Your task to perform on an android device: Show the shopping cart on amazon.com. Search for "usb-a" on amazon.com, select the first entry, and add it to the cart. Image 0: 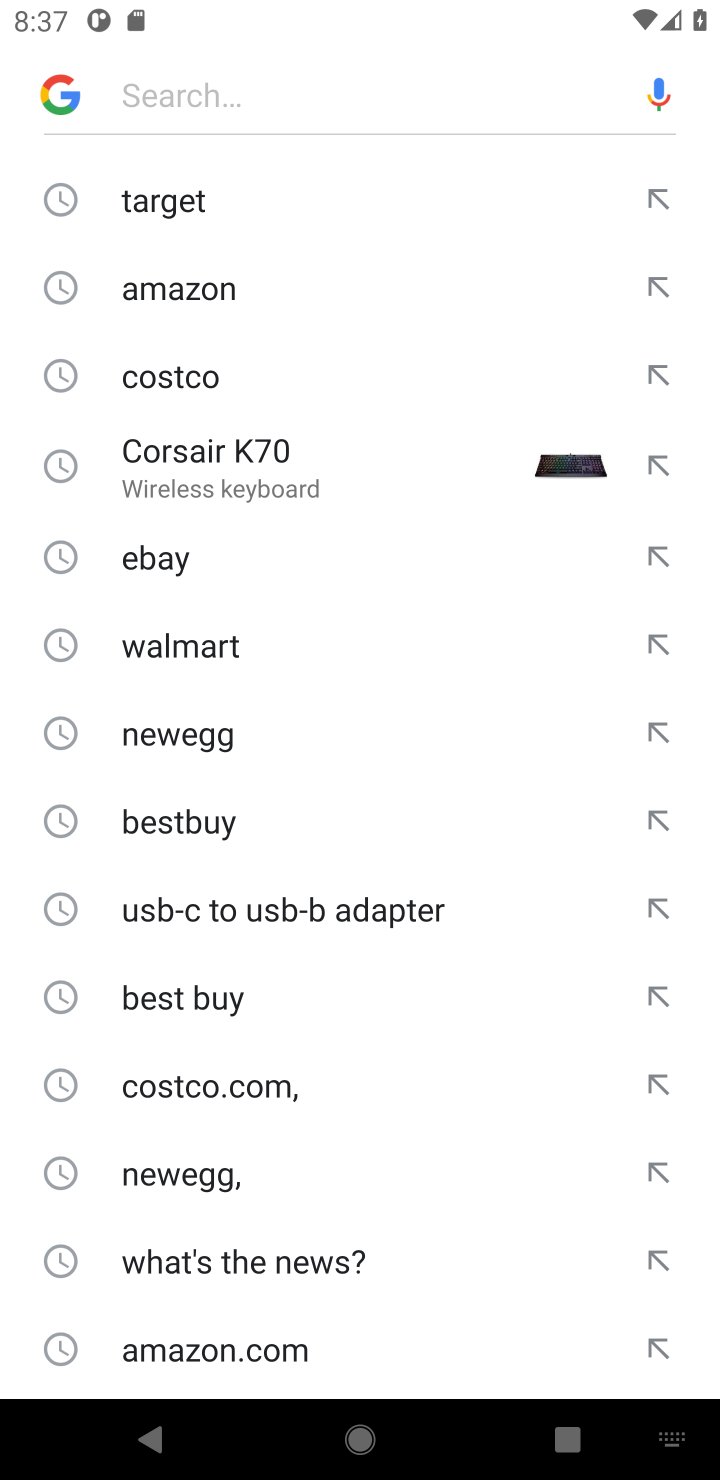
Step 0: press home button
Your task to perform on an android device: Show the shopping cart on amazon.com. Search for "usb-a" on amazon.com, select the first entry, and add it to the cart. Image 1: 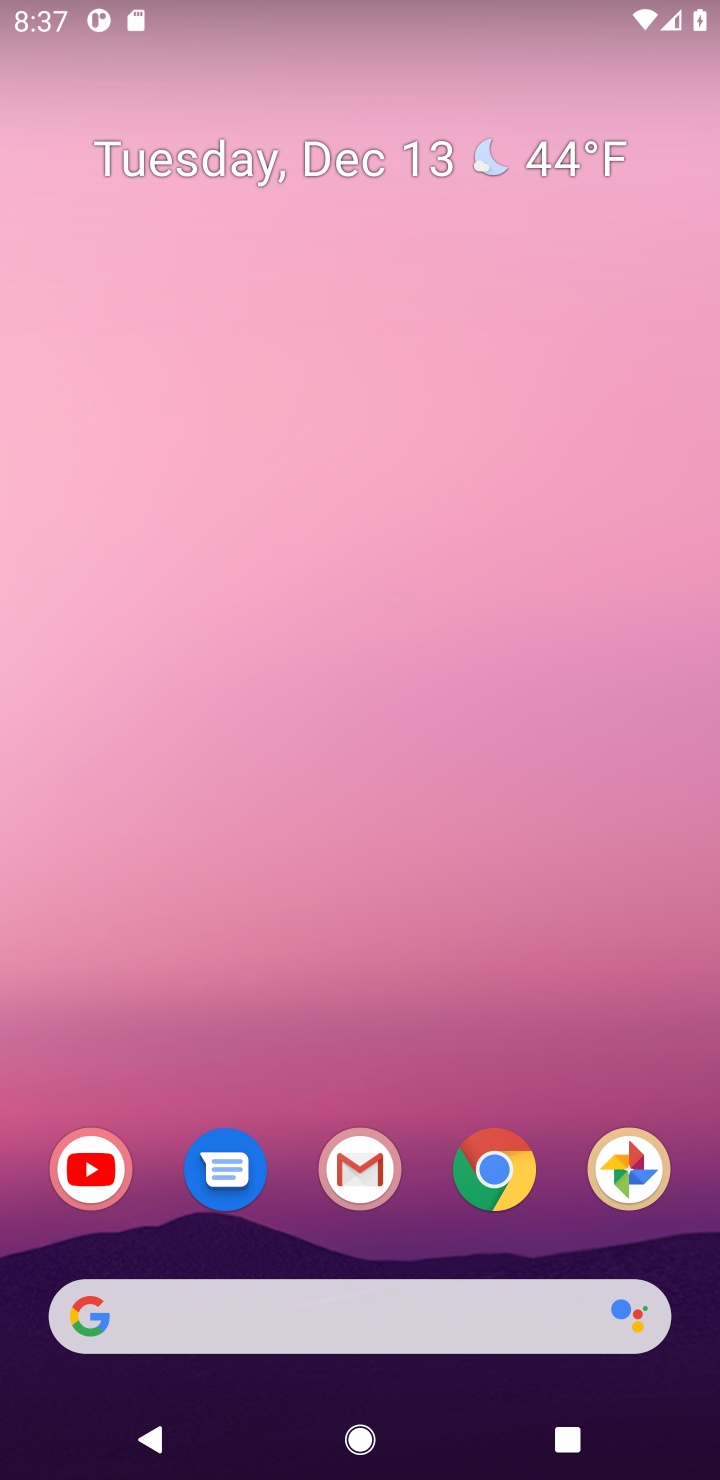
Step 1: click (511, 1166)
Your task to perform on an android device: Show the shopping cart on amazon.com. Search for "usb-a" on amazon.com, select the first entry, and add it to the cart. Image 2: 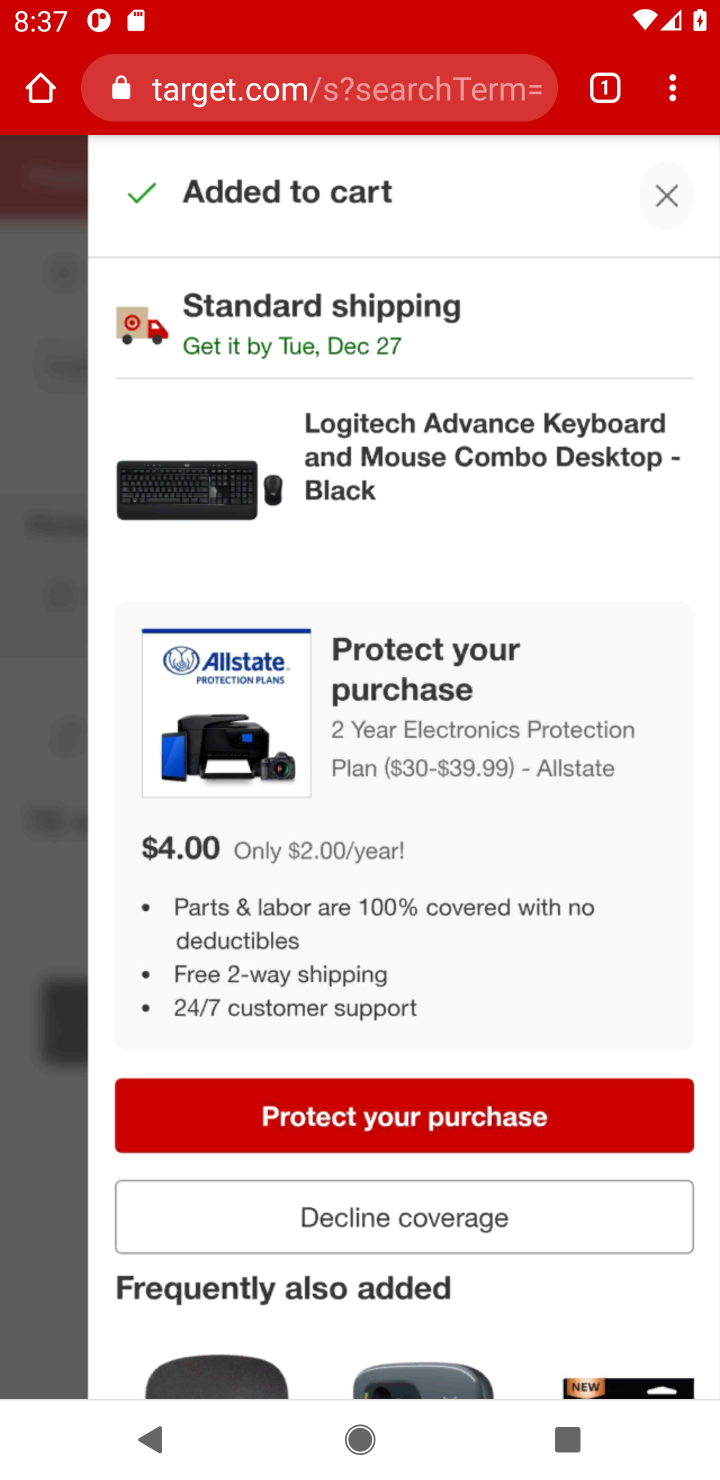
Step 2: click (232, 95)
Your task to perform on an android device: Show the shopping cart on amazon.com. Search for "usb-a" on amazon.com, select the first entry, and add it to the cart. Image 3: 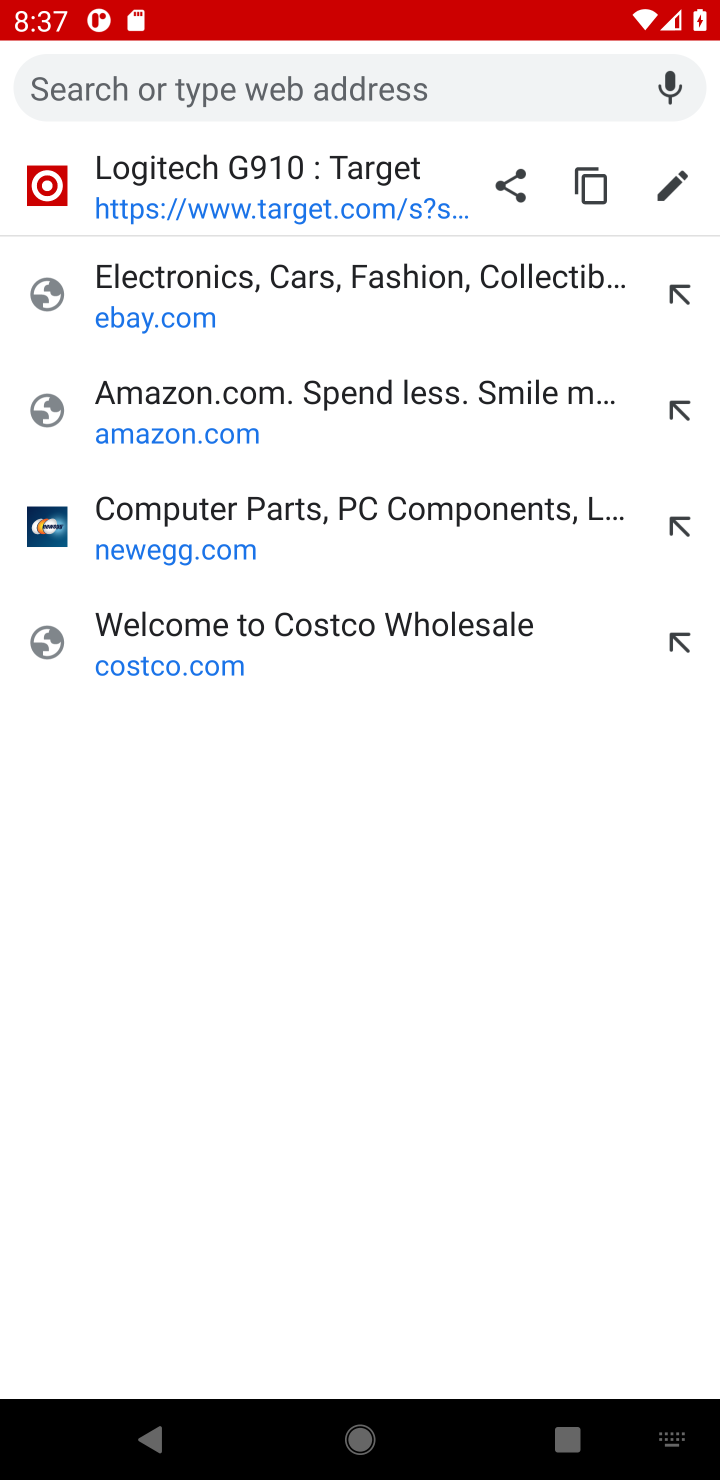
Step 3: type "amazon"
Your task to perform on an android device: Show the shopping cart on amazon.com. Search for "usb-a" on amazon.com, select the first entry, and add it to the cart. Image 4: 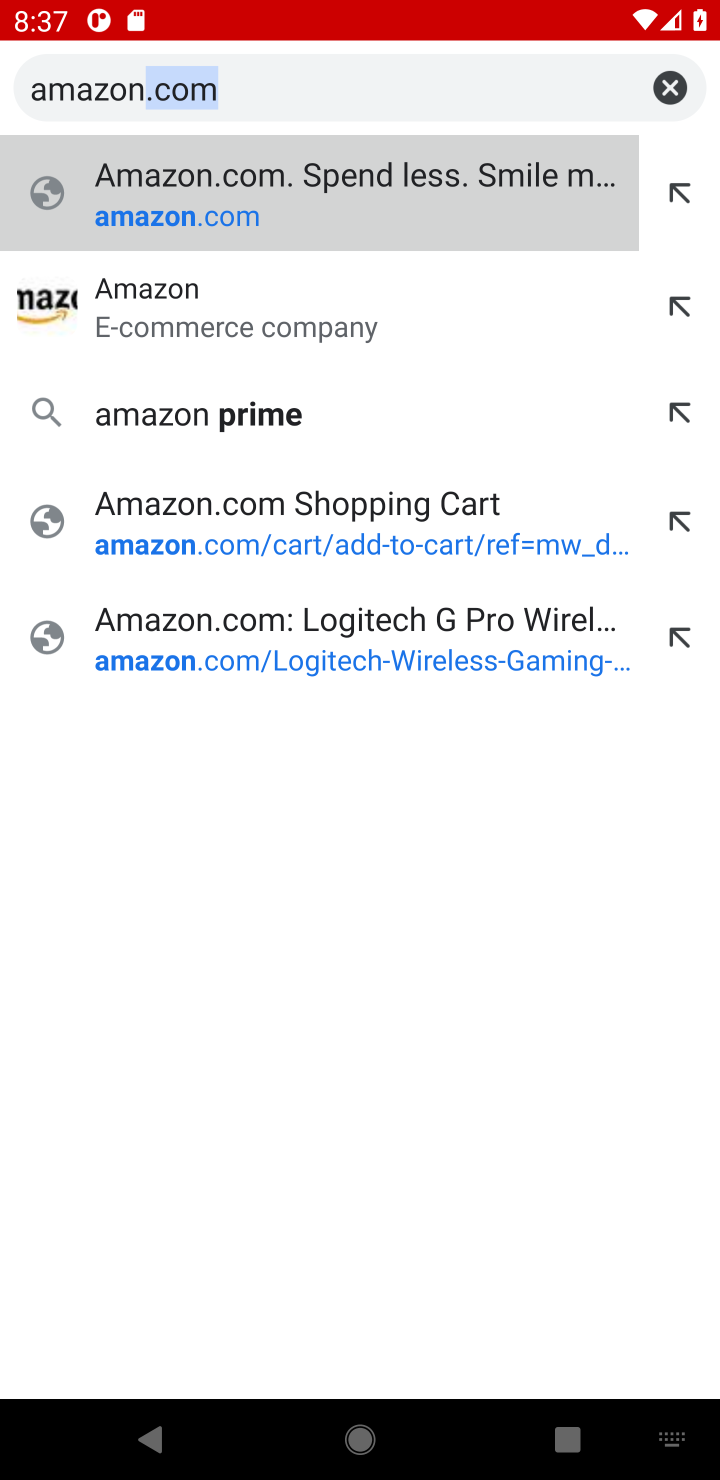
Step 4: click (96, 171)
Your task to perform on an android device: Show the shopping cart on amazon.com. Search for "usb-a" on amazon.com, select the first entry, and add it to the cart. Image 5: 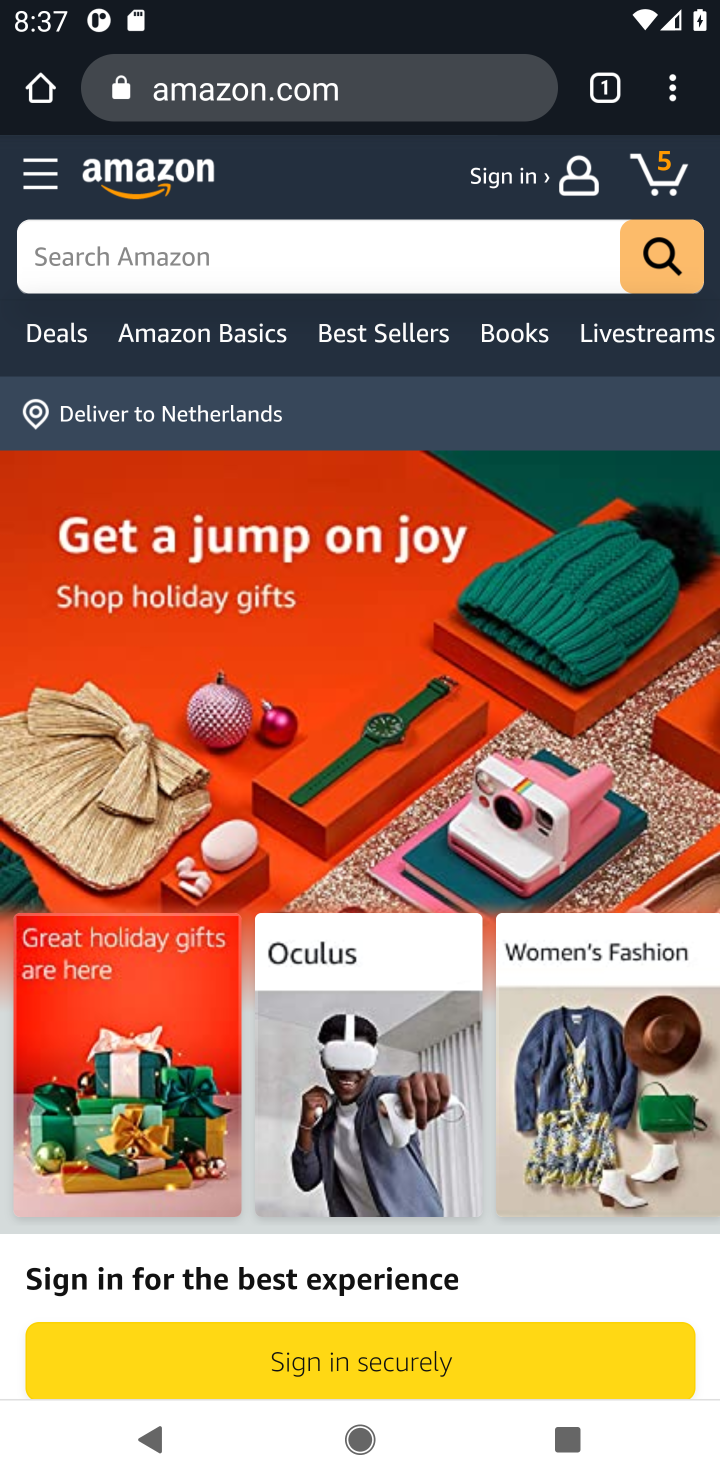
Step 5: click (271, 263)
Your task to perform on an android device: Show the shopping cart on amazon.com. Search for "usb-a" on amazon.com, select the first entry, and add it to the cart. Image 6: 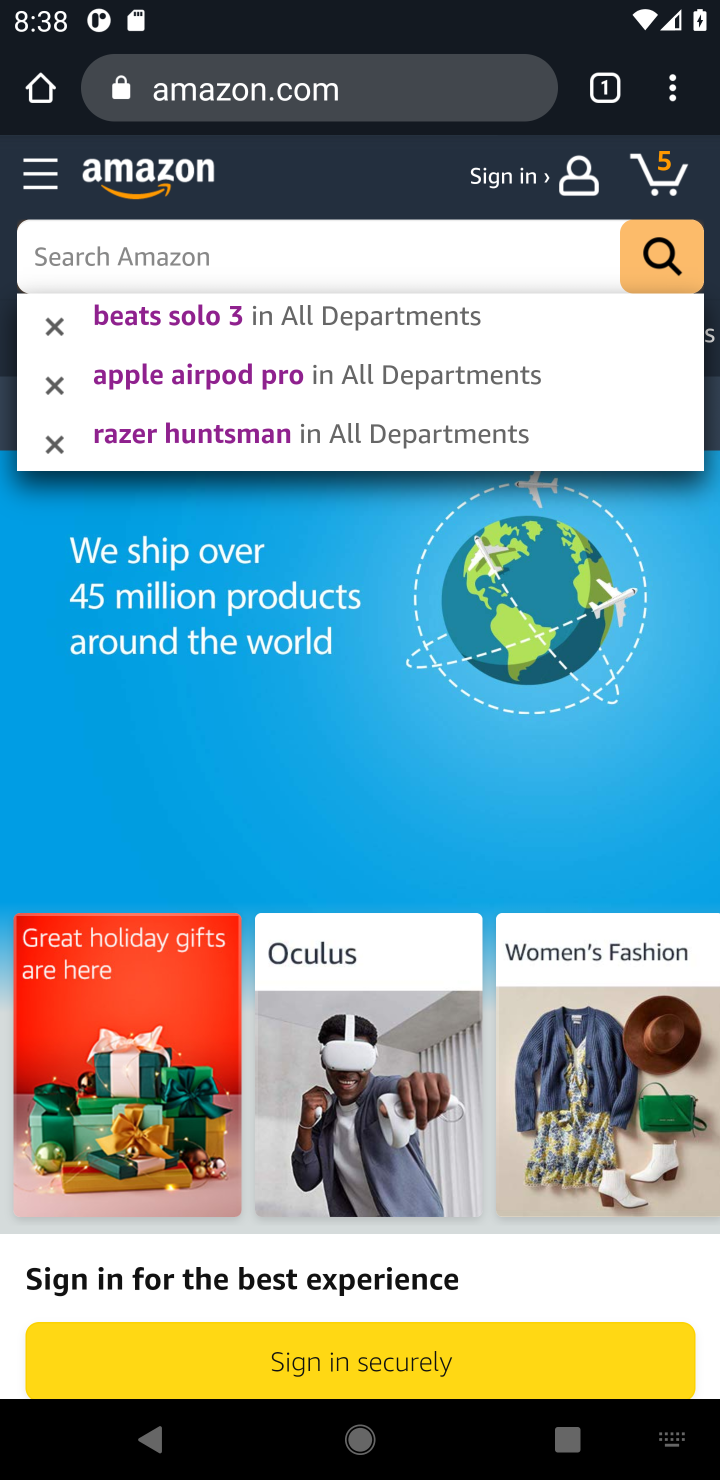
Step 6: type "usb-a"
Your task to perform on an android device: Show the shopping cart on amazon.com. Search for "usb-a" on amazon.com, select the first entry, and add it to the cart. Image 7: 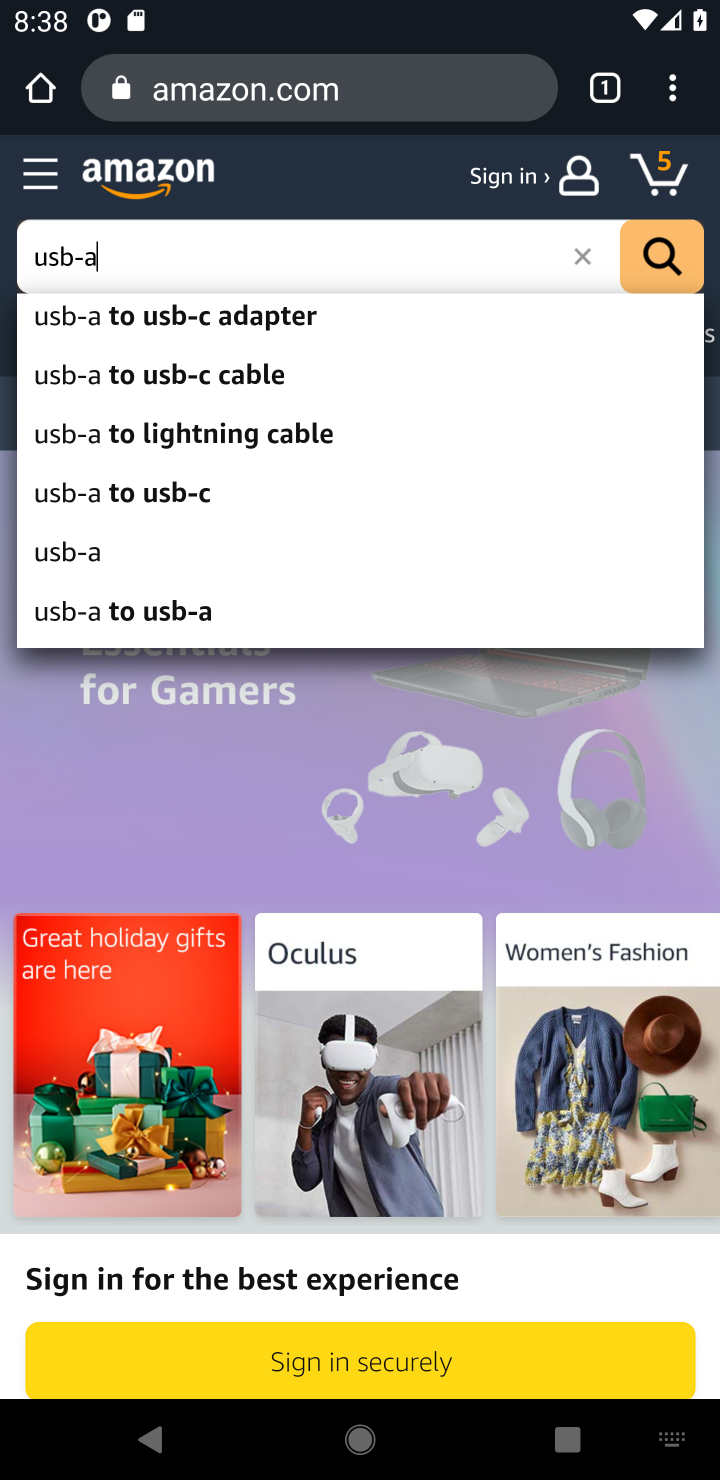
Step 7: click (655, 268)
Your task to perform on an android device: Show the shopping cart on amazon.com. Search for "usb-a" on amazon.com, select the first entry, and add it to the cart. Image 8: 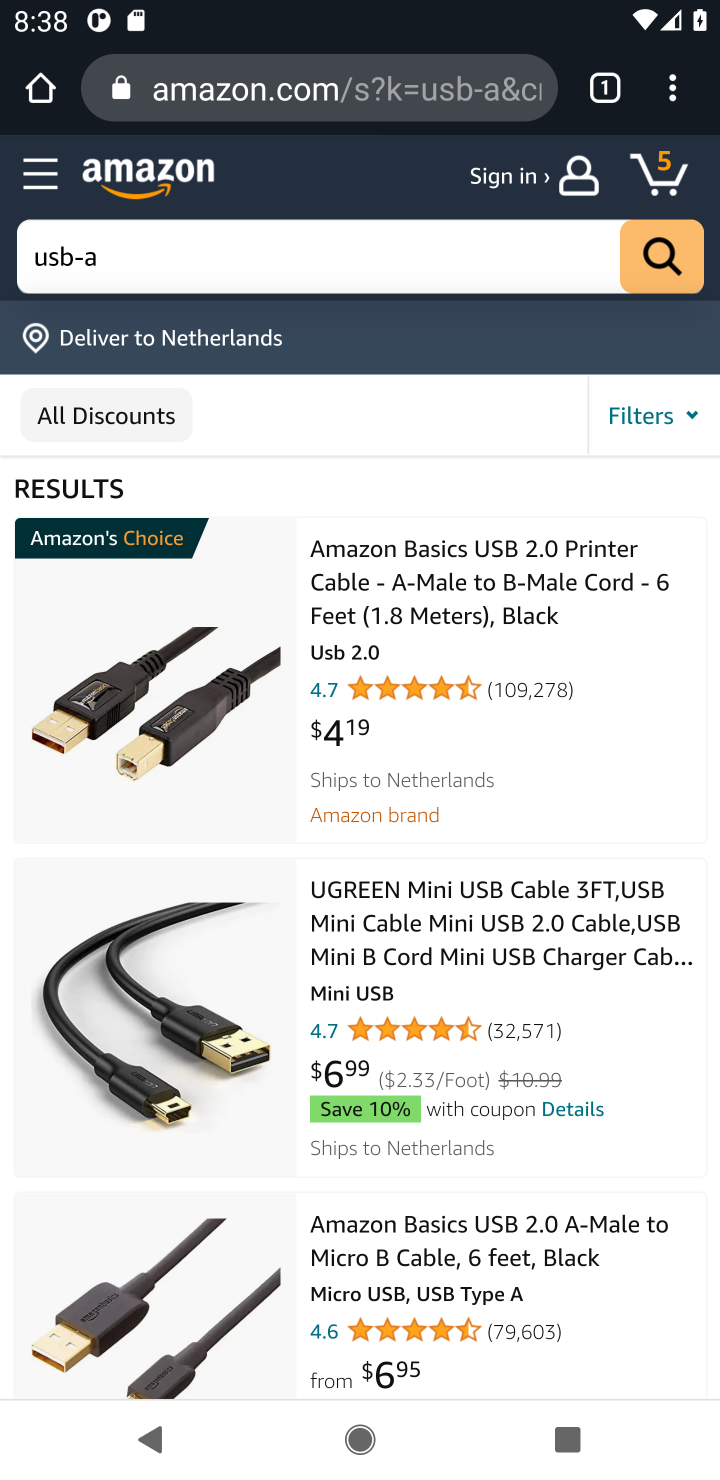
Step 8: click (440, 550)
Your task to perform on an android device: Show the shopping cart on amazon.com. Search for "usb-a" on amazon.com, select the first entry, and add it to the cart. Image 9: 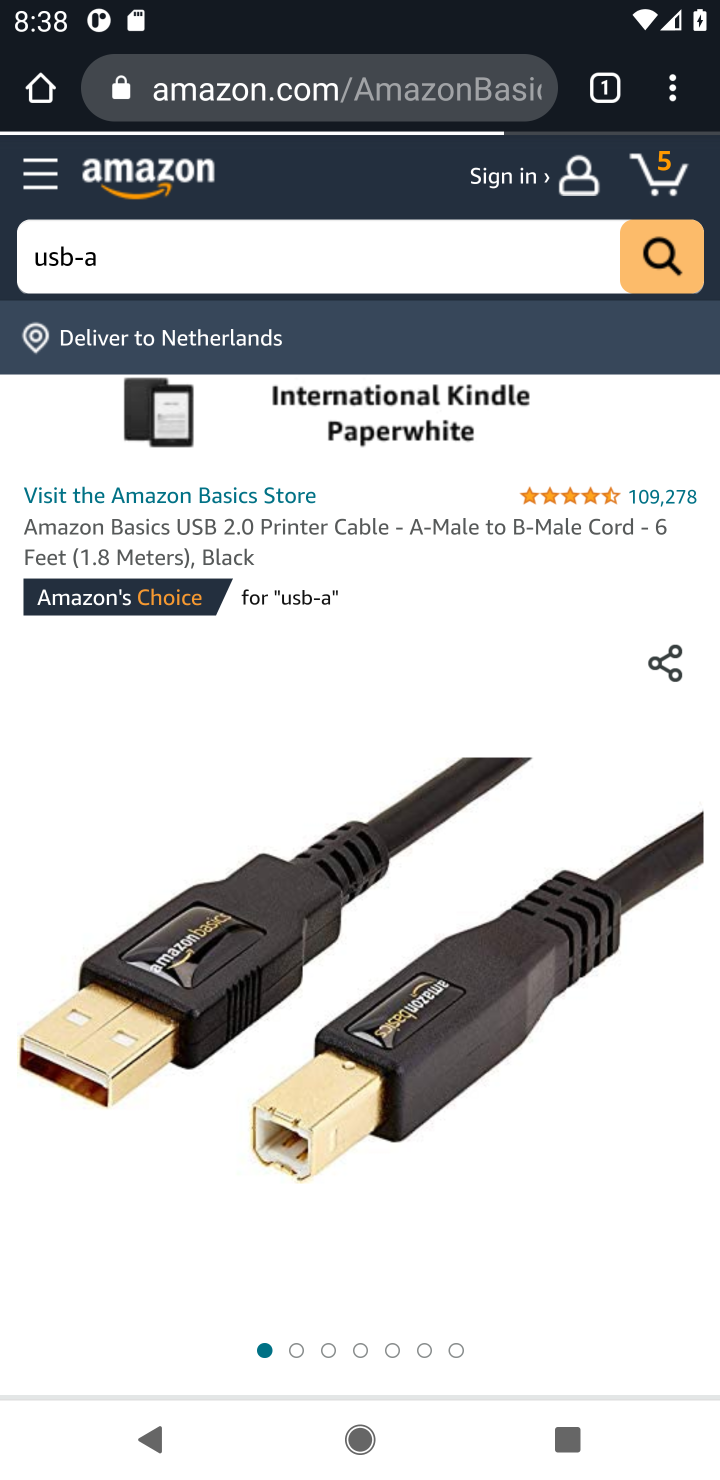
Step 9: drag from (334, 1052) to (422, 478)
Your task to perform on an android device: Show the shopping cart on amazon.com. Search for "usb-a" on amazon.com, select the first entry, and add it to the cart. Image 10: 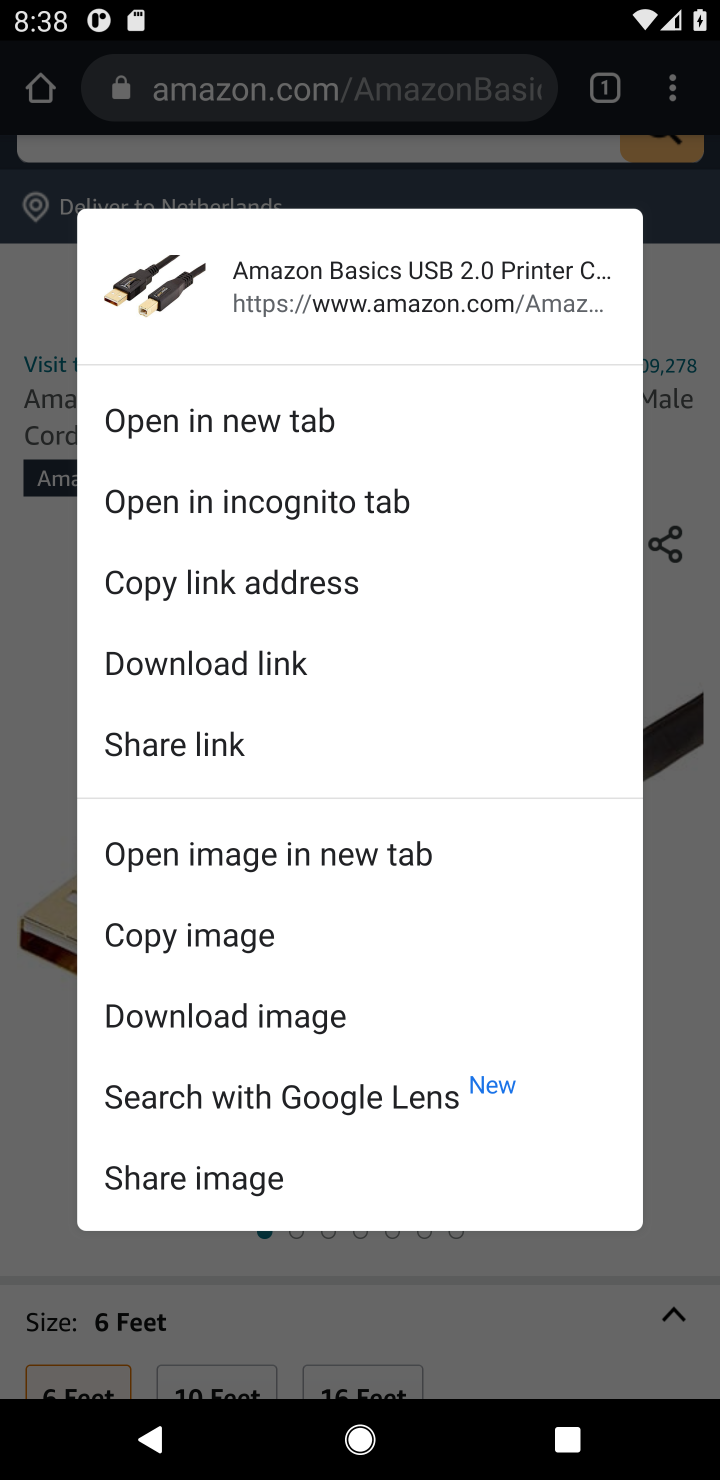
Step 10: click (672, 1091)
Your task to perform on an android device: Show the shopping cart on amazon.com. Search for "usb-a" on amazon.com, select the first entry, and add it to the cart. Image 11: 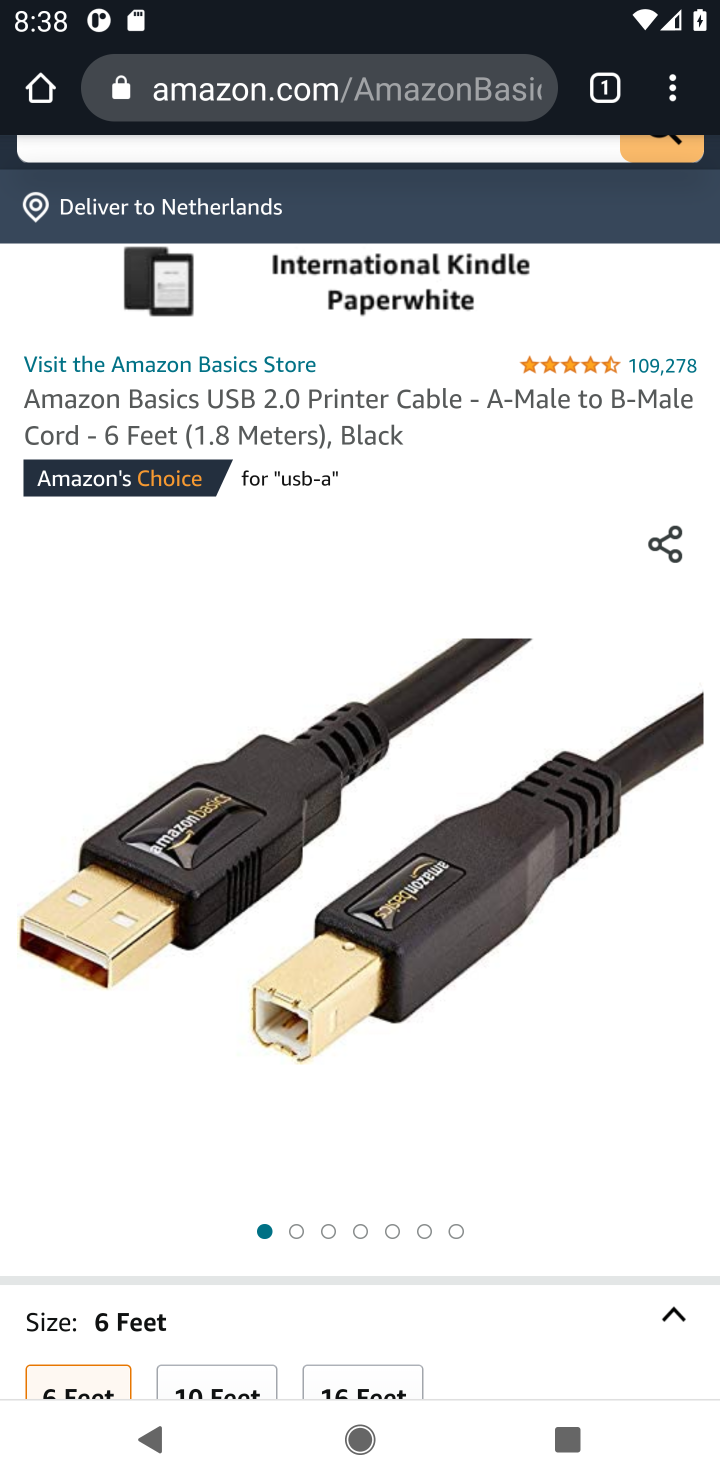
Step 11: drag from (448, 1208) to (479, 396)
Your task to perform on an android device: Show the shopping cart on amazon.com. Search for "usb-a" on amazon.com, select the first entry, and add it to the cart. Image 12: 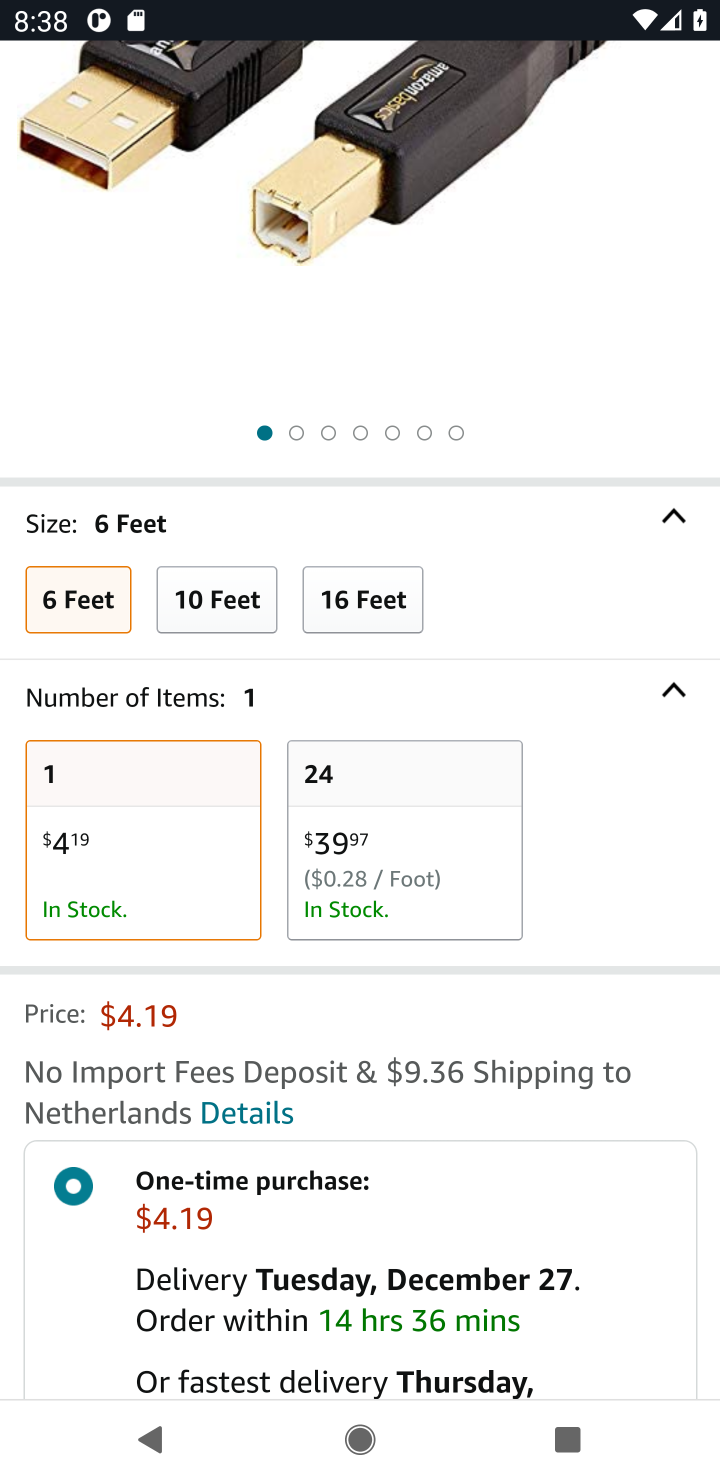
Step 12: drag from (386, 1029) to (445, 512)
Your task to perform on an android device: Show the shopping cart on amazon.com. Search for "usb-a" on amazon.com, select the first entry, and add it to the cart. Image 13: 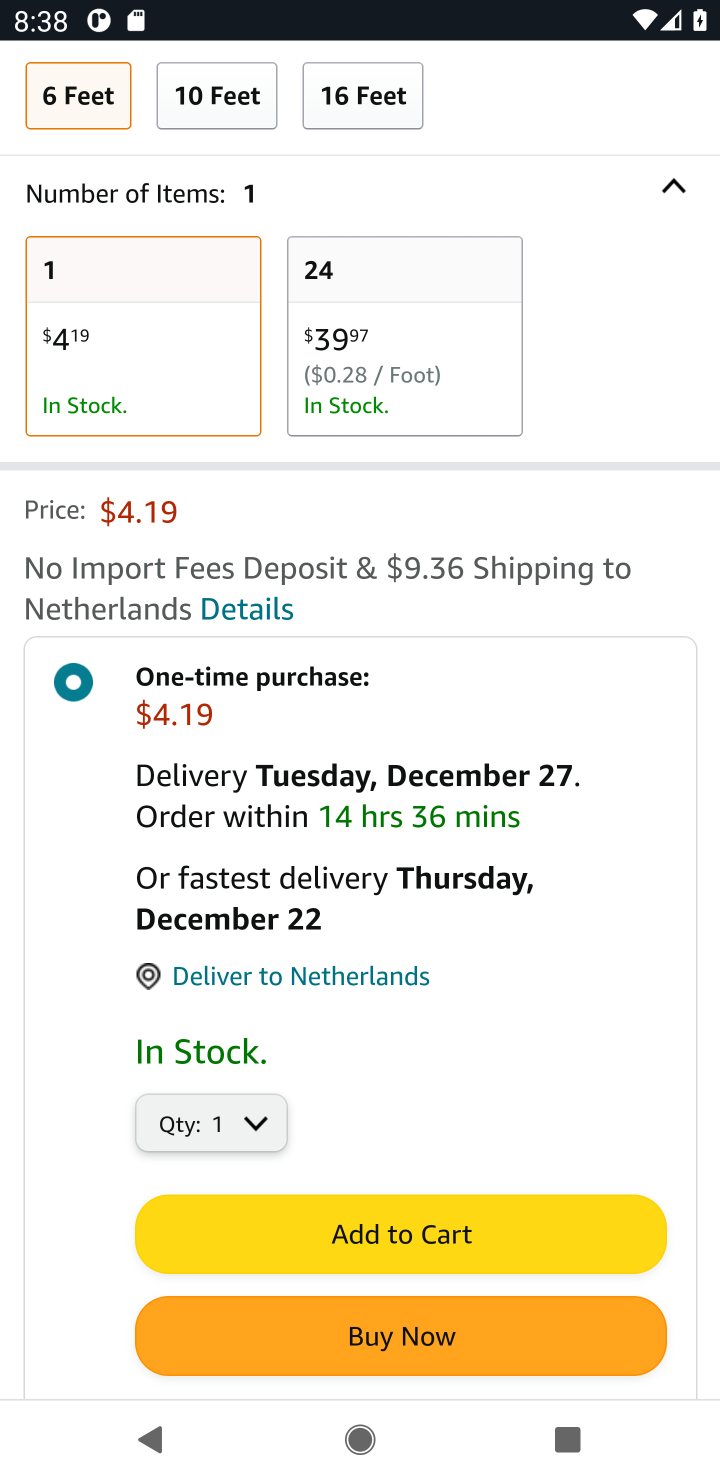
Step 13: click (345, 1229)
Your task to perform on an android device: Show the shopping cart on amazon.com. Search for "usb-a" on amazon.com, select the first entry, and add it to the cart. Image 14: 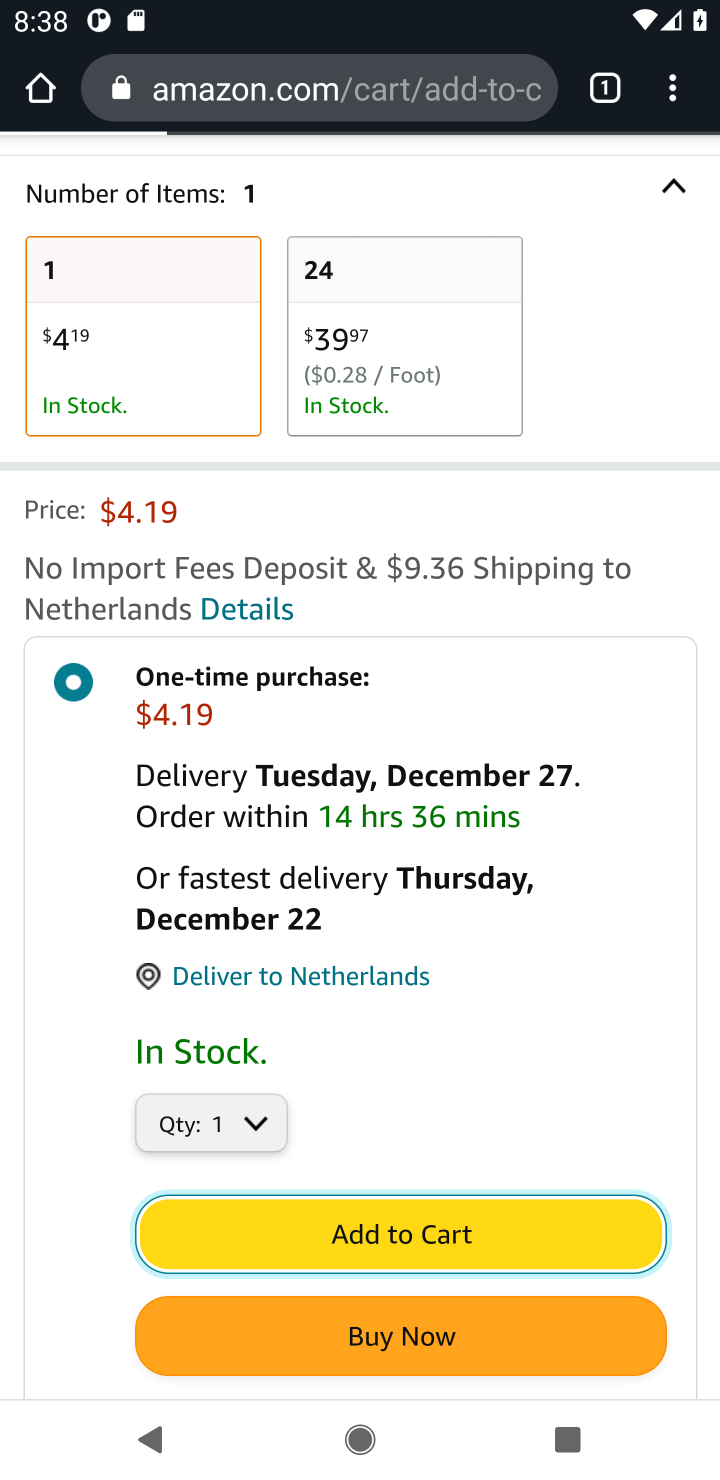
Step 14: task complete